Your task to perform on an android device: Search for Italian restaurants on Maps Image 0: 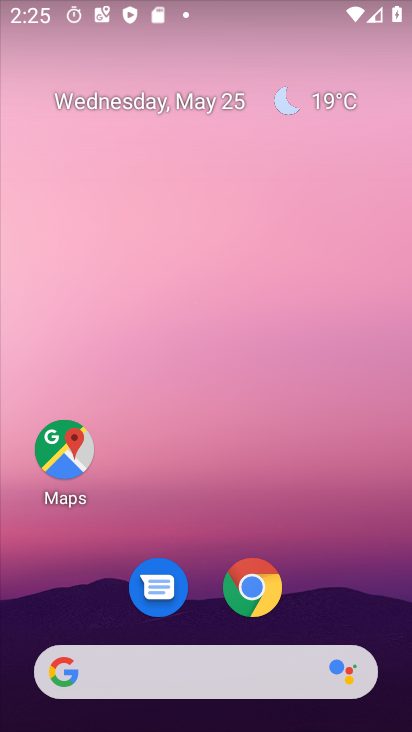
Step 0: click (66, 450)
Your task to perform on an android device: Search for Italian restaurants on Maps Image 1: 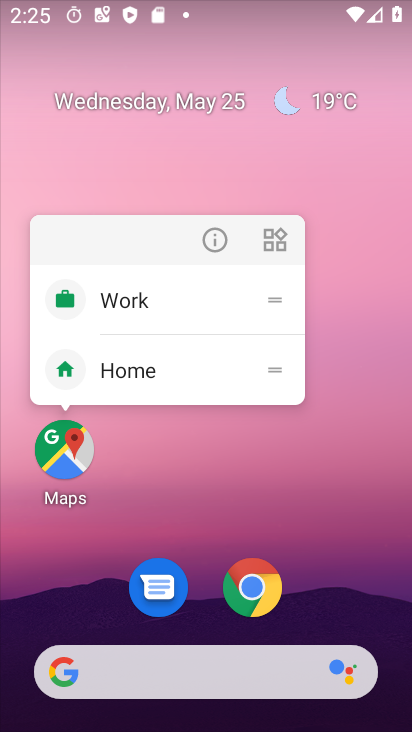
Step 1: click (66, 450)
Your task to perform on an android device: Search for Italian restaurants on Maps Image 2: 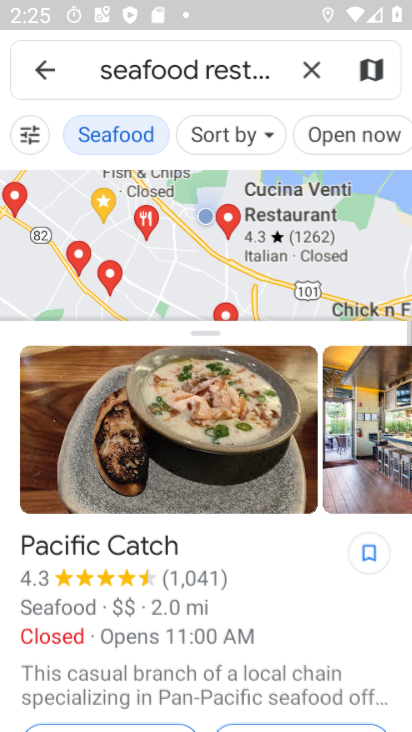
Step 2: click (308, 69)
Your task to perform on an android device: Search for Italian restaurants on Maps Image 3: 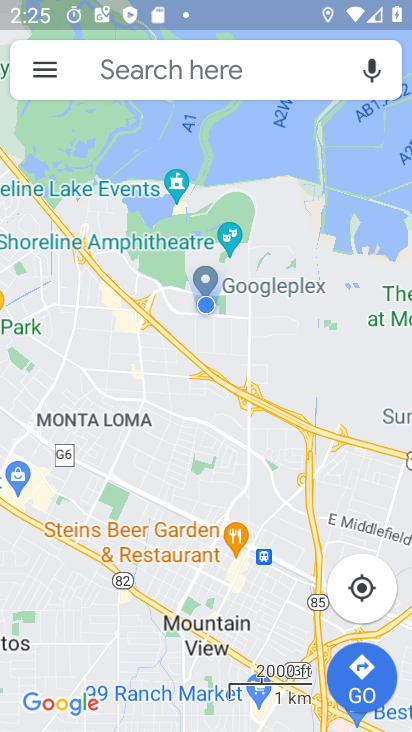
Step 3: click (193, 60)
Your task to perform on an android device: Search for Italian restaurants on Maps Image 4: 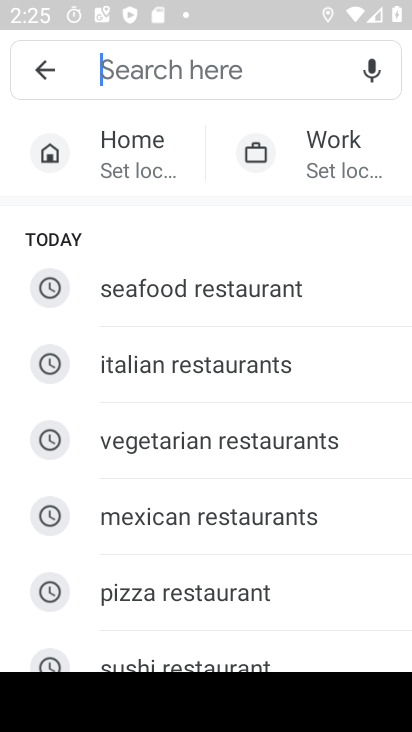
Step 4: click (217, 366)
Your task to perform on an android device: Search for Italian restaurants on Maps Image 5: 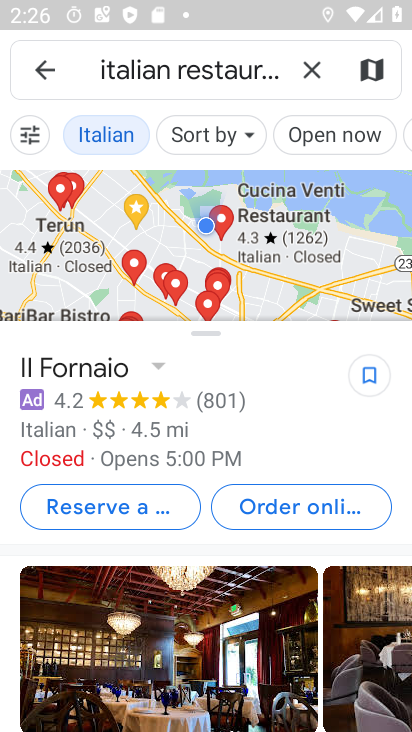
Step 5: task complete